Your task to perform on an android device: Search for "beats solo 3" on newegg, select the first entry, and add it to the cart. Image 0: 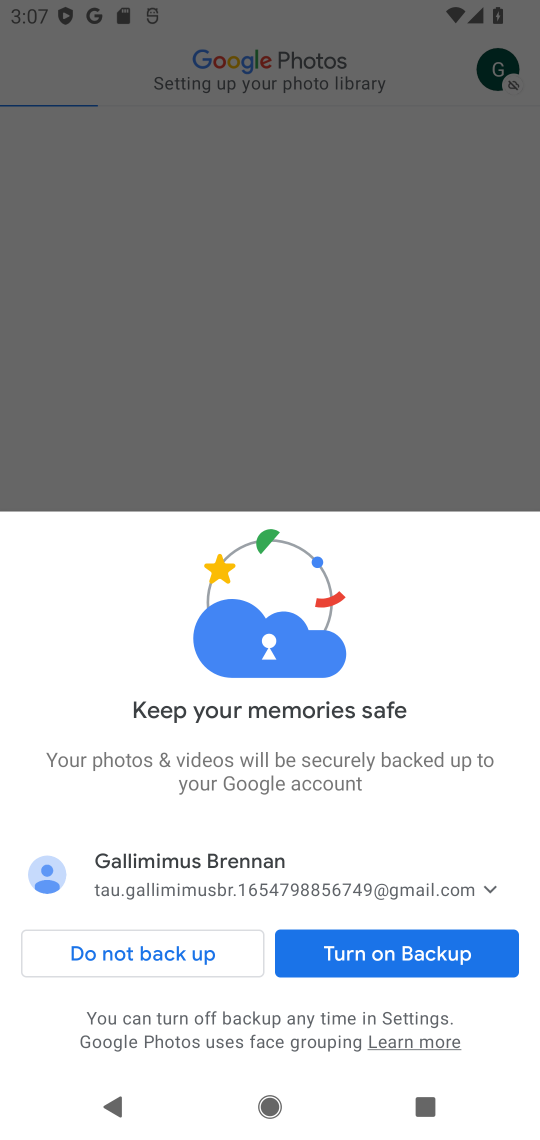
Step 0: press home button
Your task to perform on an android device: Search for "beats solo 3" on newegg, select the first entry, and add it to the cart. Image 1: 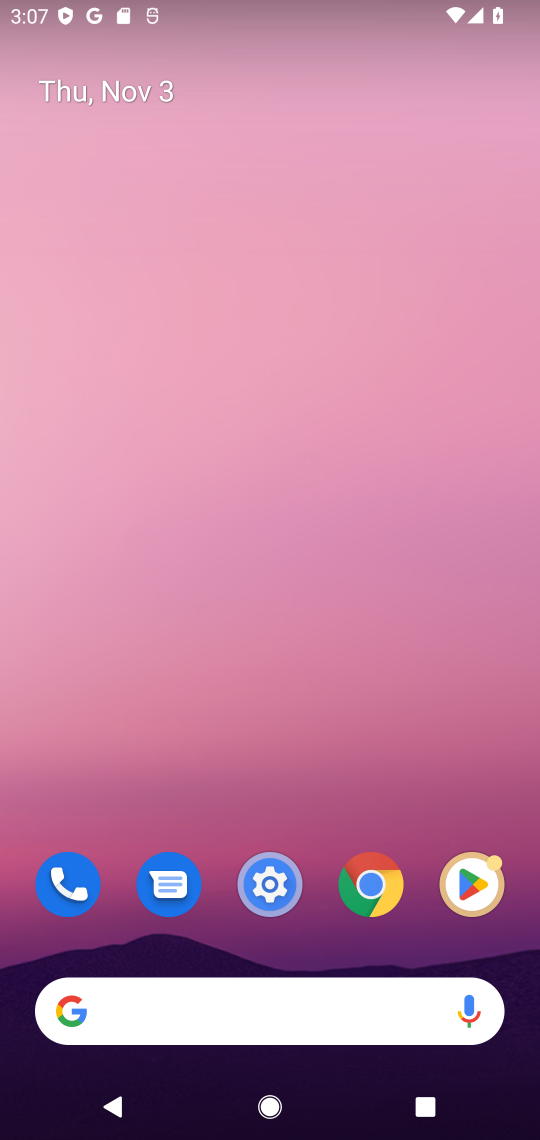
Step 1: click (176, 1002)
Your task to perform on an android device: Search for "beats solo 3" on newegg, select the first entry, and add it to the cart. Image 2: 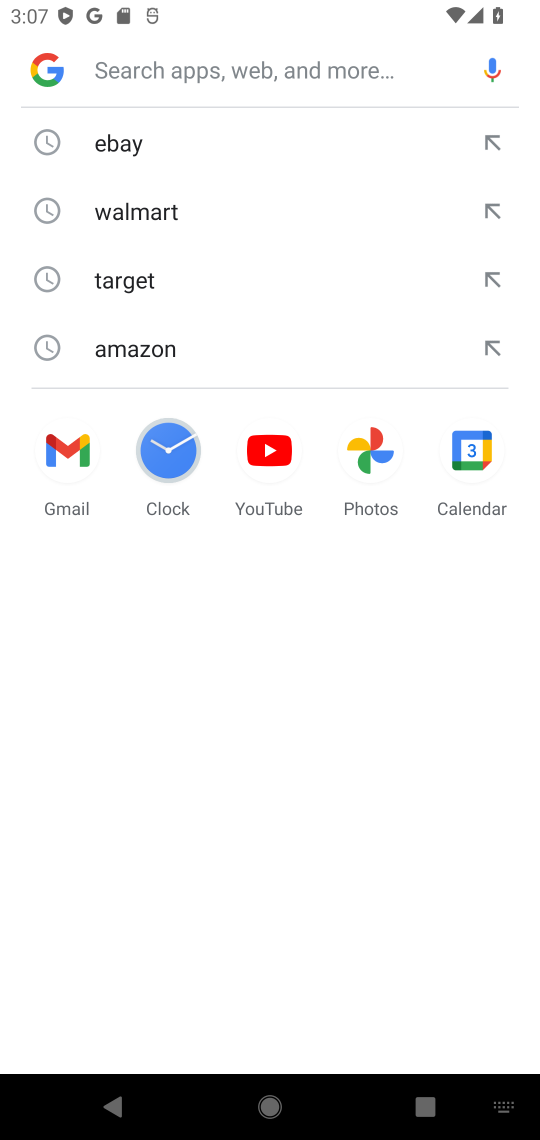
Step 2: type "newegg"
Your task to perform on an android device: Search for "beats solo 3" on newegg, select the first entry, and add it to the cart. Image 3: 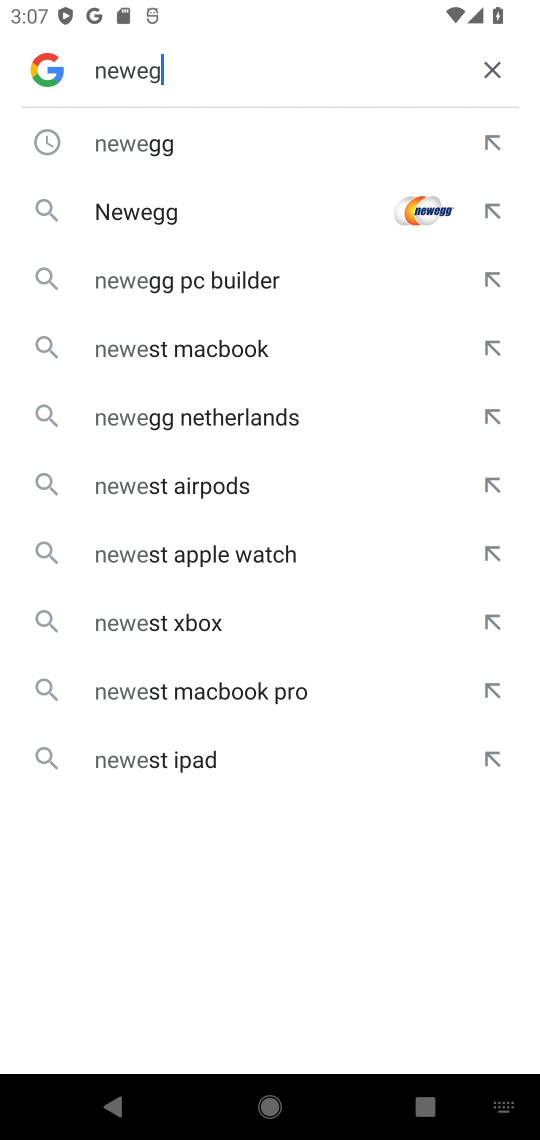
Step 3: press enter
Your task to perform on an android device: Search for "beats solo 3" on newegg, select the first entry, and add it to the cart. Image 4: 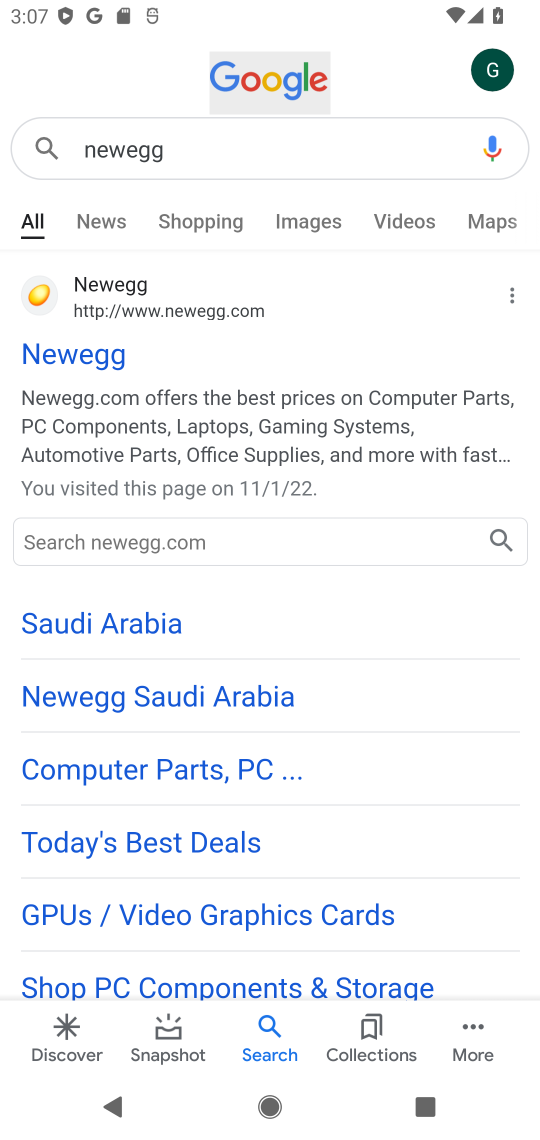
Step 4: click (73, 350)
Your task to perform on an android device: Search for "beats solo 3" on newegg, select the first entry, and add it to the cart. Image 5: 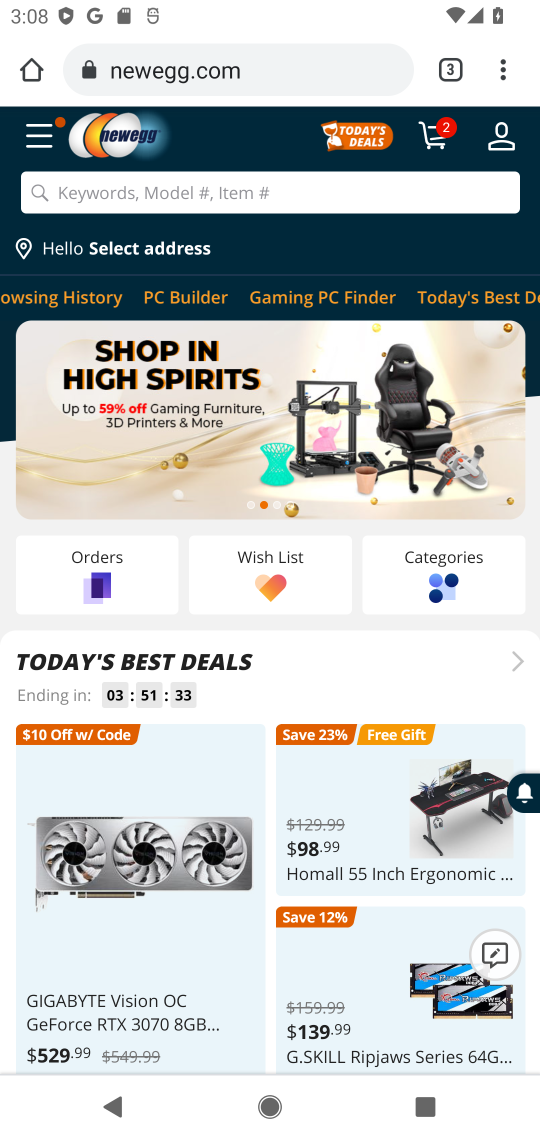
Step 5: click (218, 198)
Your task to perform on an android device: Search for "beats solo 3" on newegg, select the first entry, and add it to the cart. Image 6: 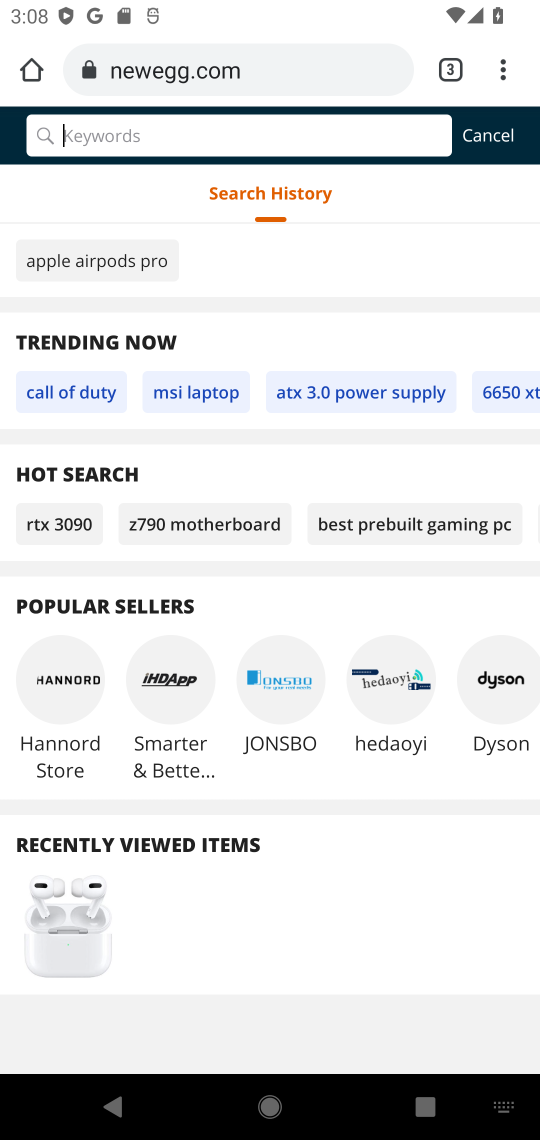
Step 6: type "beats solo 3"
Your task to perform on an android device: Search for "beats solo 3" on newegg, select the first entry, and add it to the cart. Image 7: 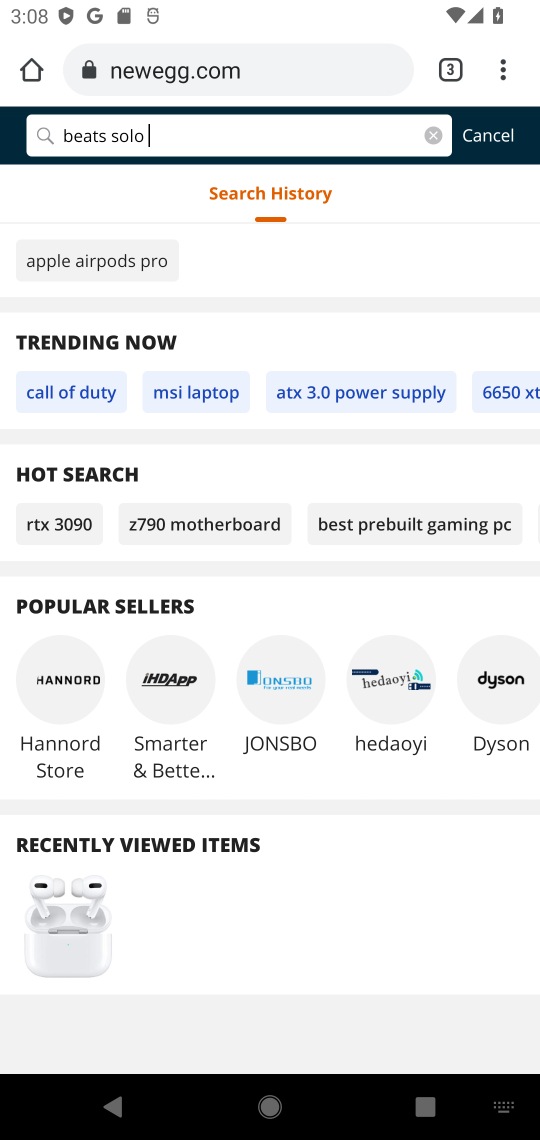
Step 7: press enter
Your task to perform on an android device: Search for "beats solo 3" on newegg, select the first entry, and add it to the cart. Image 8: 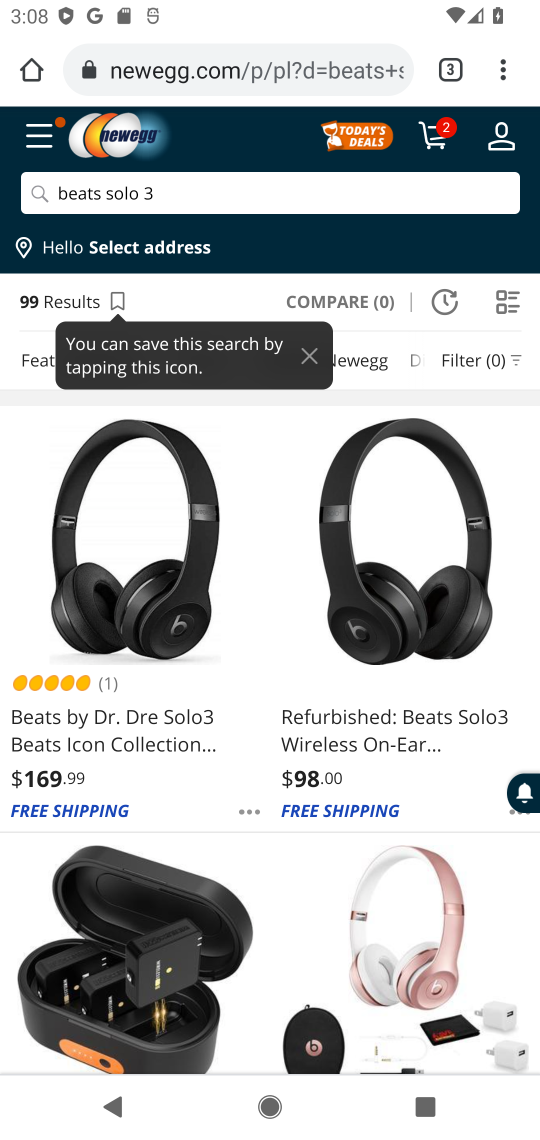
Step 8: drag from (299, 858) to (309, 668)
Your task to perform on an android device: Search for "beats solo 3" on newegg, select the first entry, and add it to the cart. Image 9: 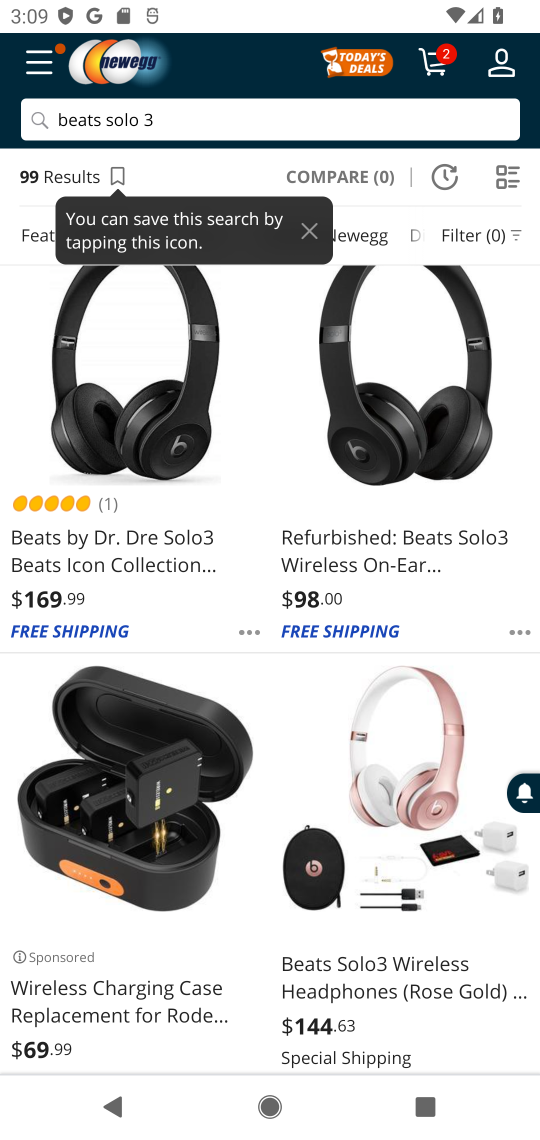
Step 9: click (118, 541)
Your task to perform on an android device: Search for "beats solo 3" on newegg, select the first entry, and add it to the cart. Image 10: 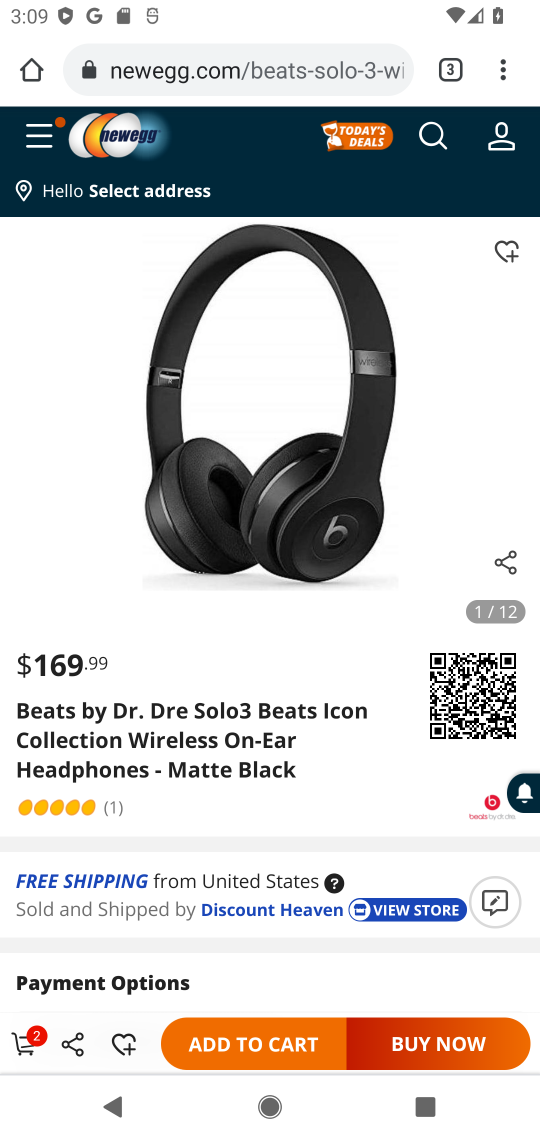
Step 10: click (263, 1040)
Your task to perform on an android device: Search for "beats solo 3" on newegg, select the first entry, and add it to the cart. Image 11: 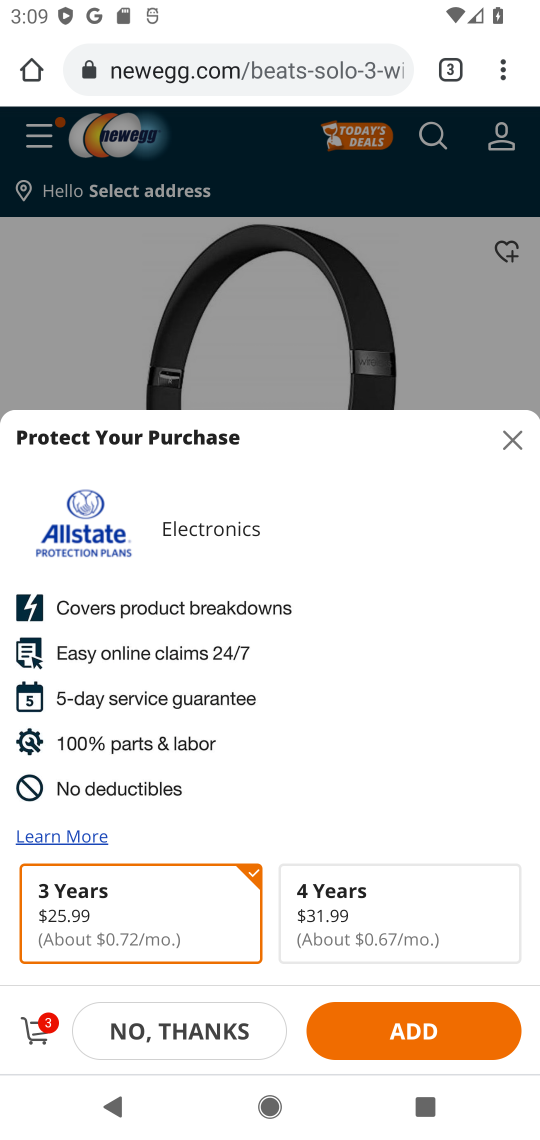
Step 11: click (200, 1029)
Your task to perform on an android device: Search for "beats solo 3" on newegg, select the first entry, and add it to the cart. Image 12: 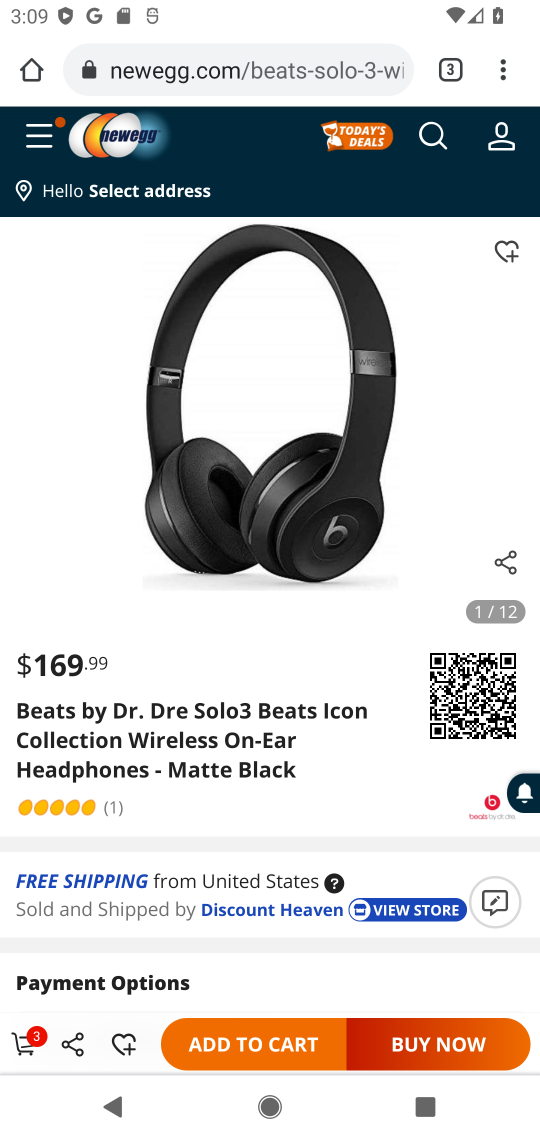
Step 12: task complete